Your task to perform on an android device: create a new album in the google photos Image 0: 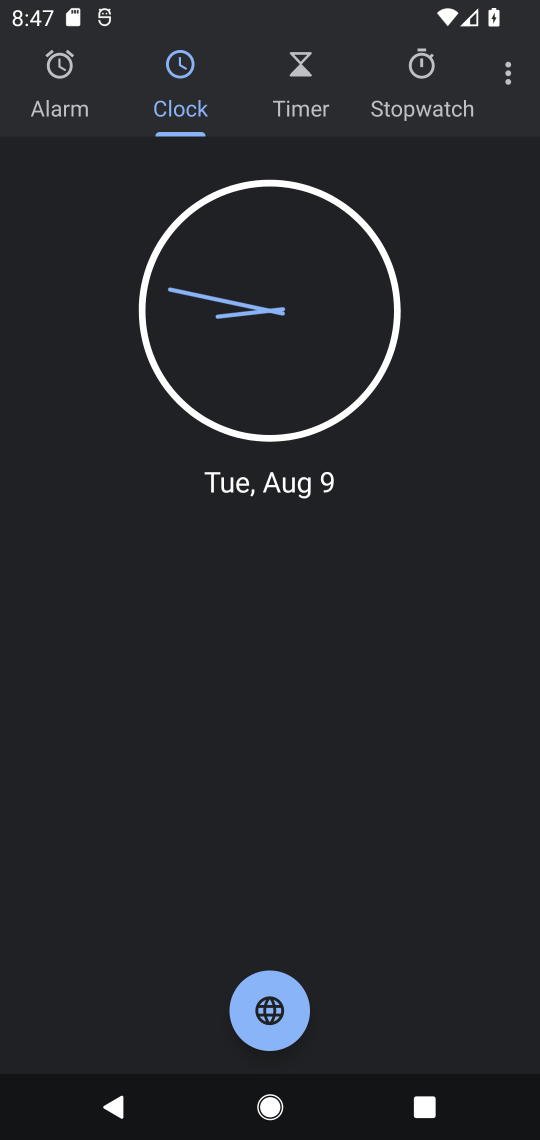
Step 0: press home button
Your task to perform on an android device: create a new album in the google photos Image 1: 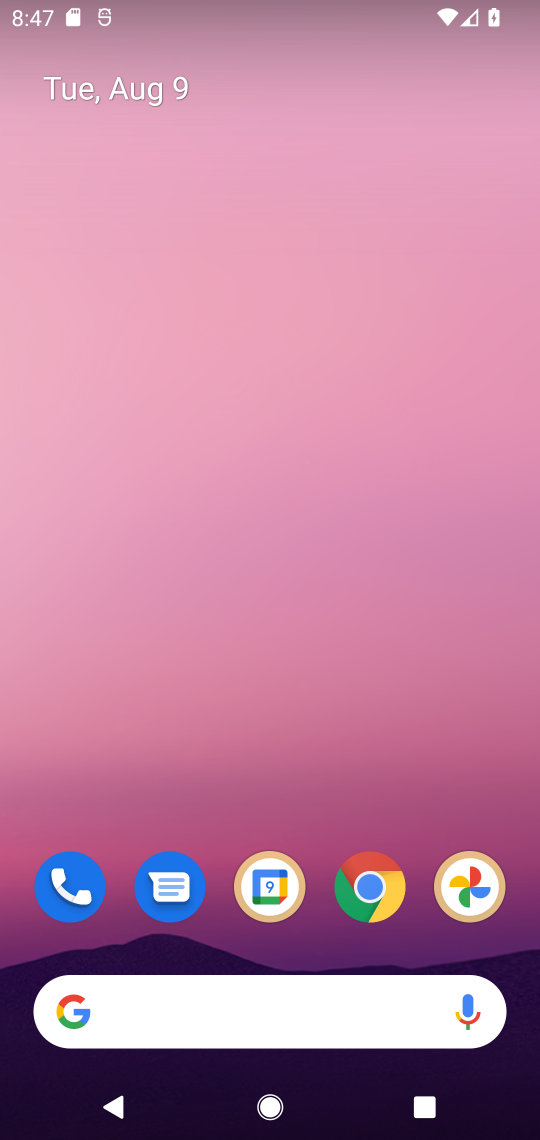
Step 1: click (473, 885)
Your task to perform on an android device: create a new album in the google photos Image 2: 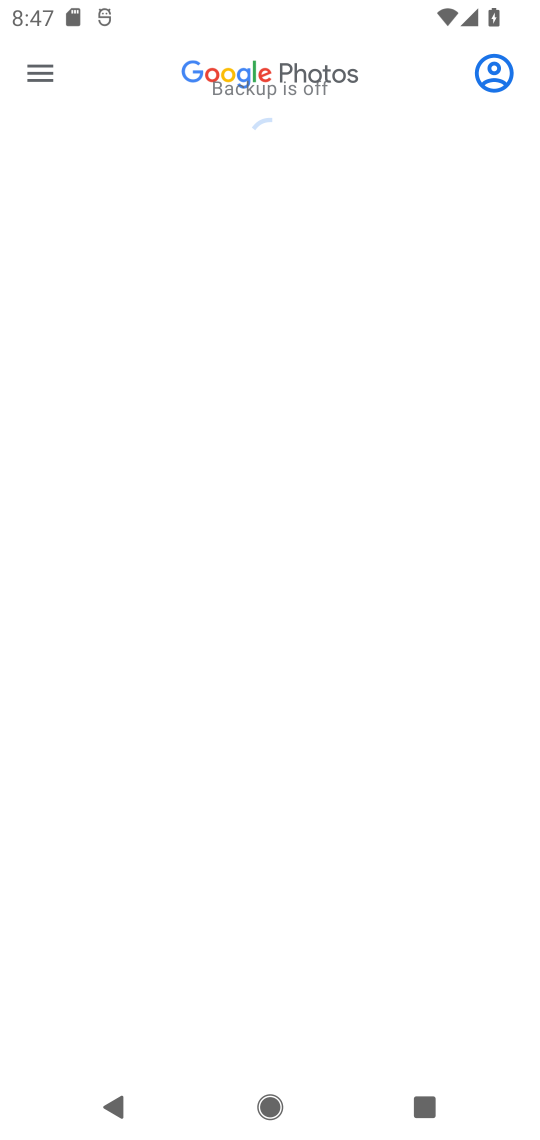
Step 2: click (46, 61)
Your task to perform on an android device: create a new album in the google photos Image 3: 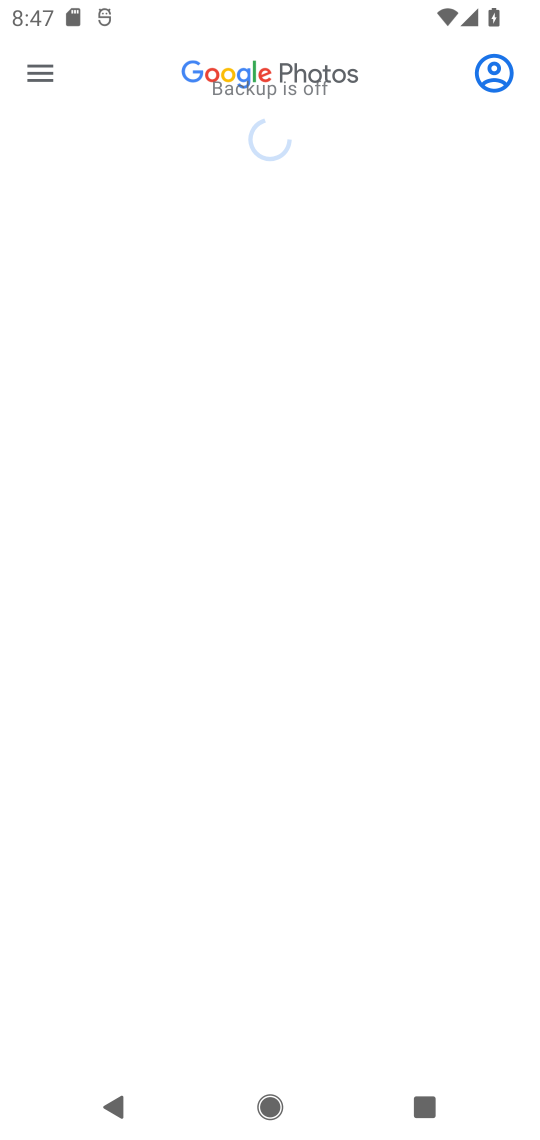
Step 3: click (40, 90)
Your task to perform on an android device: create a new album in the google photos Image 4: 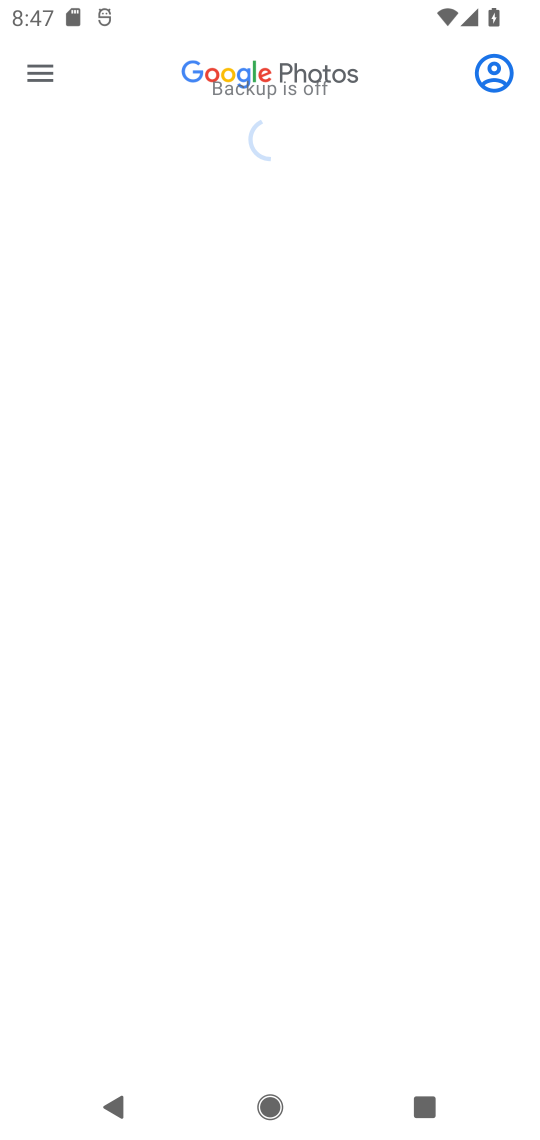
Step 4: click (40, 90)
Your task to perform on an android device: create a new album in the google photos Image 5: 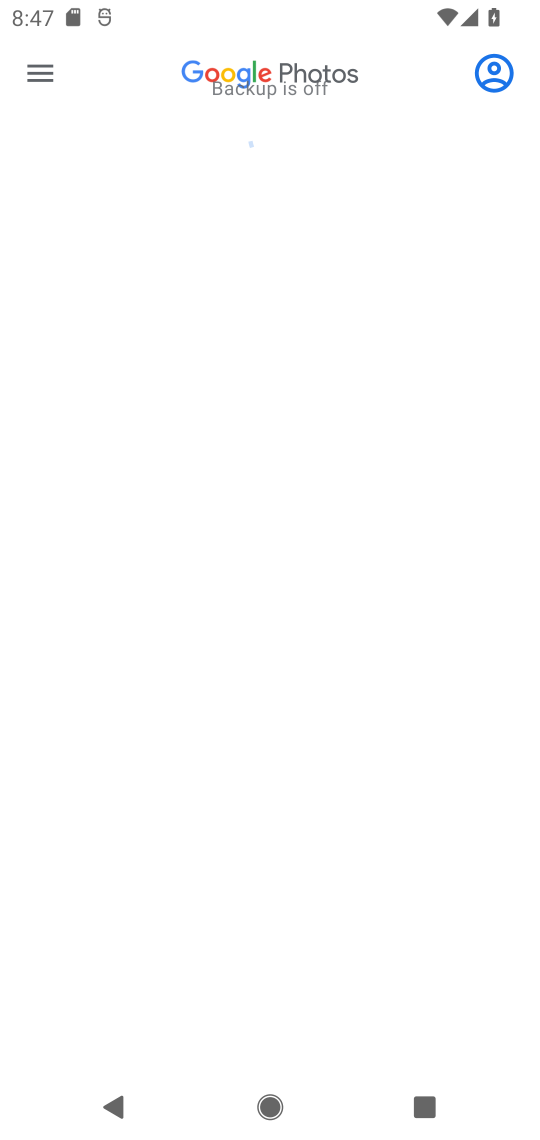
Step 5: click (45, 73)
Your task to perform on an android device: create a new album in the google photos Image 6: 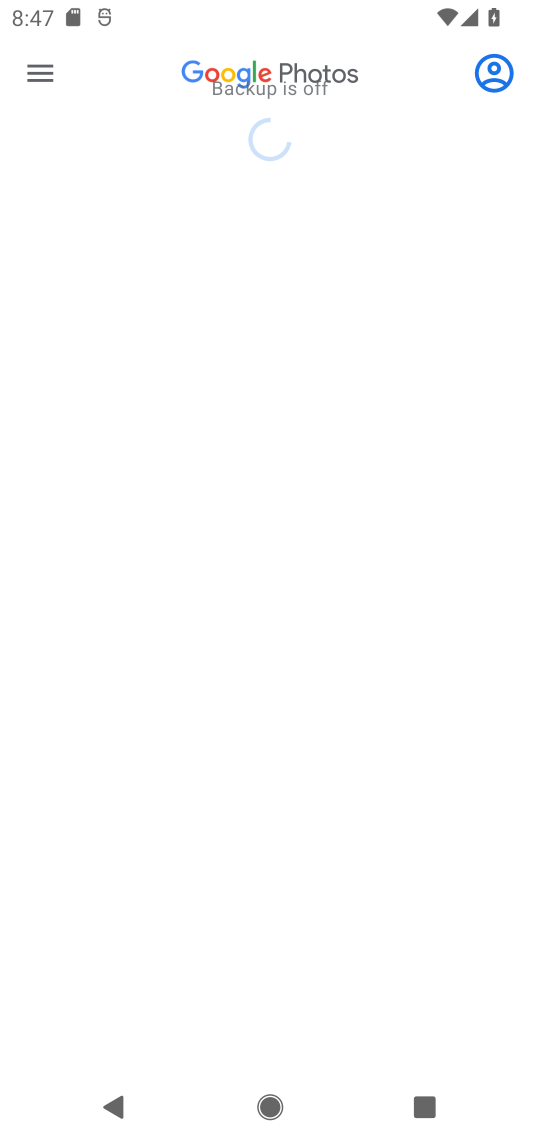
Step 6: click (44, 71)
Your task to perform on an android device: create a new album in the google photos Image 7: 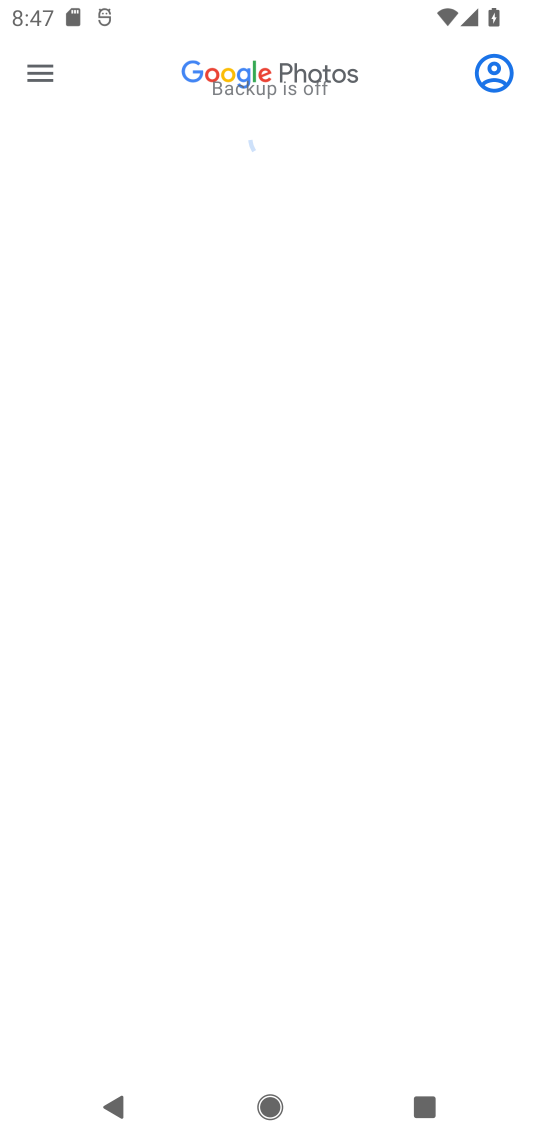
Step 7: task complete